Your task to perform on an android device: Open maps Image 0: 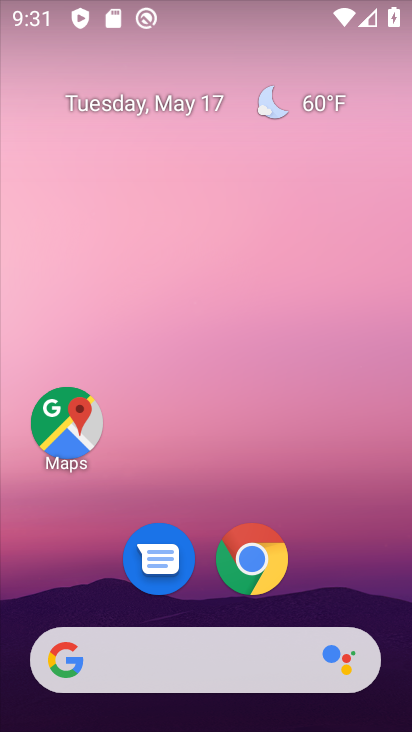
Step 0: click (77, 418)
Your task to perform on an android device: Open maps Image 1: 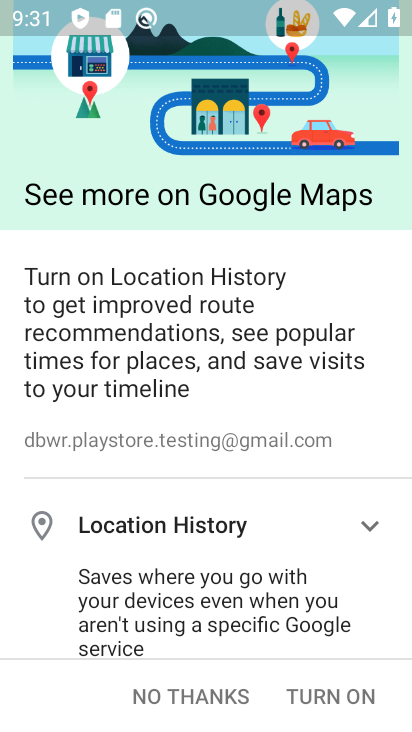
Step 1: click (200, 667)
Your task to perform on an android device: Open maps Image 2: 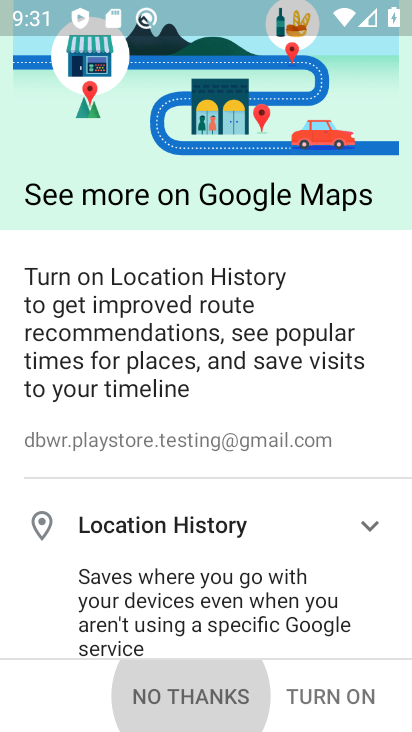
Step 2: click (205, 673)
Your task to perform on an android device: Open maps Image 3: 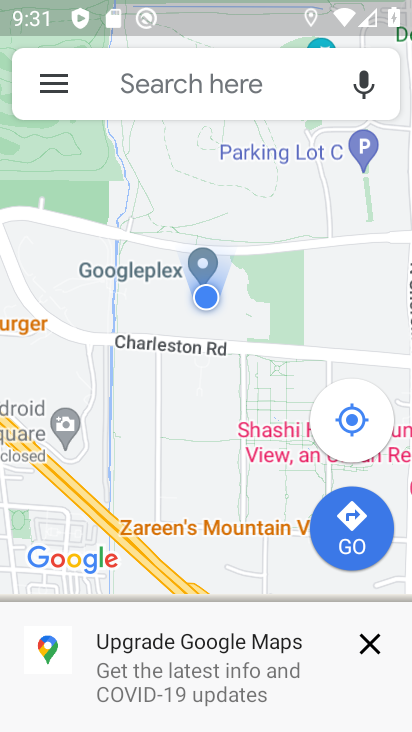
Step 3: task complete